Your task to perform on an android device: Go to Amazon Image 0: 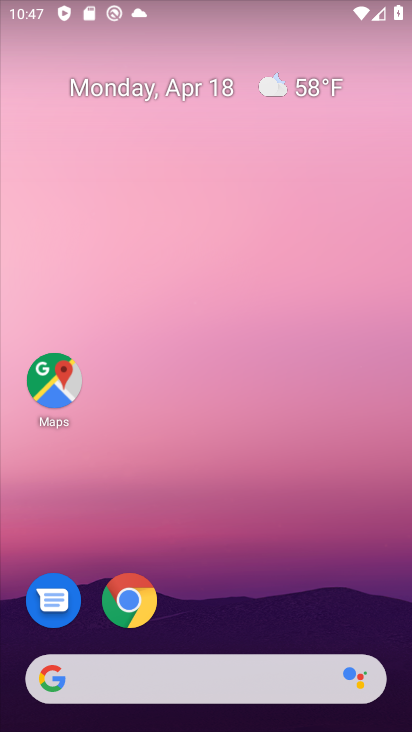
Step 0: click (129, 595)
Your task to perform on an android device: Go to Amazon Image 1: 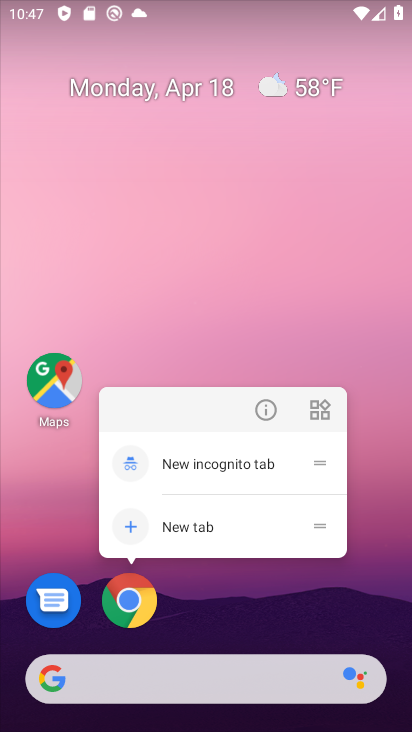
Step 1: click (130, 605)
Your task to perform on an android device: Go to Amazon Image 2: 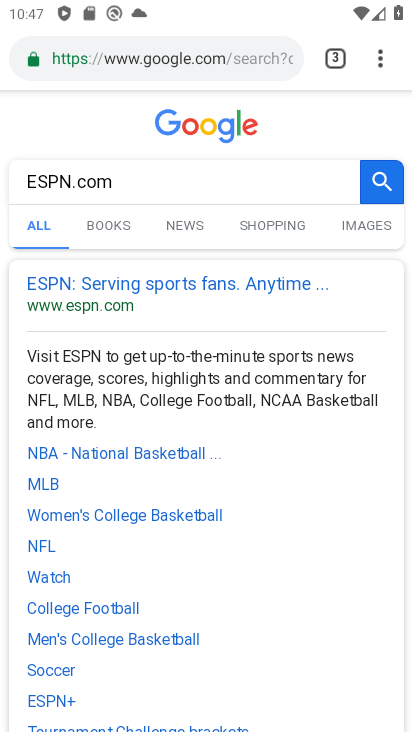
Step 2: click (379, 53)
Your task to perform on an android device: Go to Amazon Image 3: 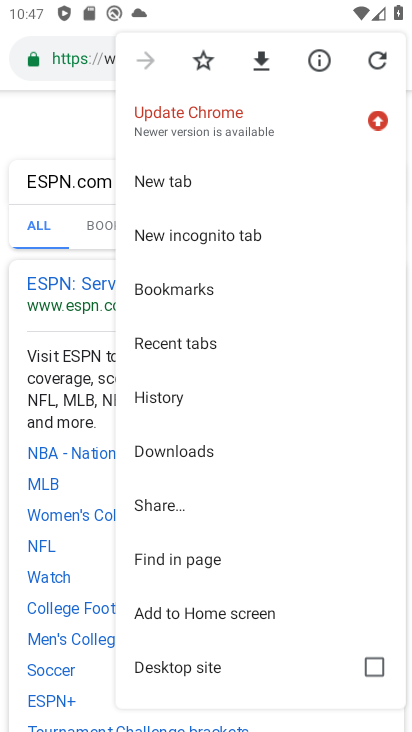
Step 3: click (174, 189)
Your task to perform on an android device: Go to Amazon Image 4: 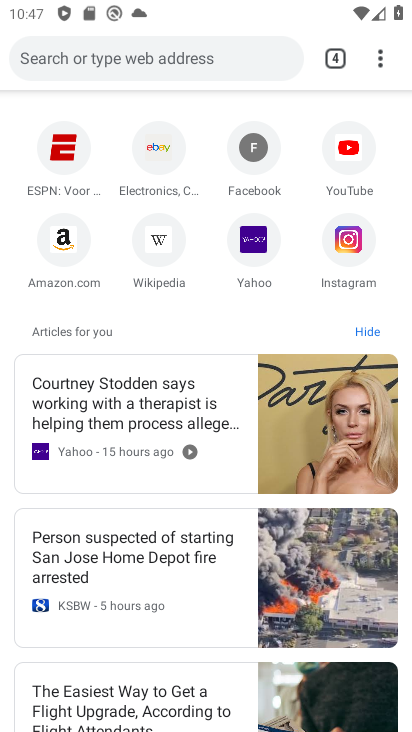
Step 4: click (61, 242)
Your task to perform on an android device: Go to Amazon Image 5: 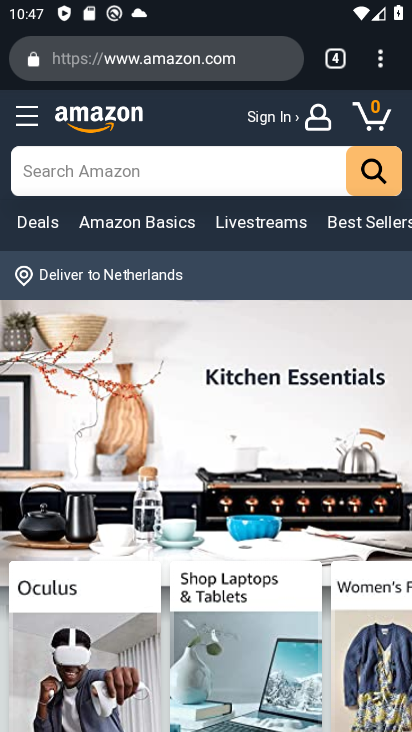
Step 5: task complete